Your task to perform on an android device: What's on my calendar tomorrow? Image 0: 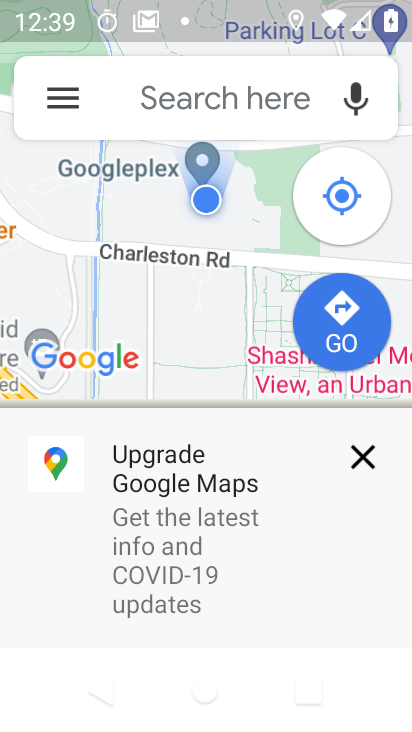
Step 0: press home button
Your task to perform on an android device: What's on my calendar tomorrow? Image 1: 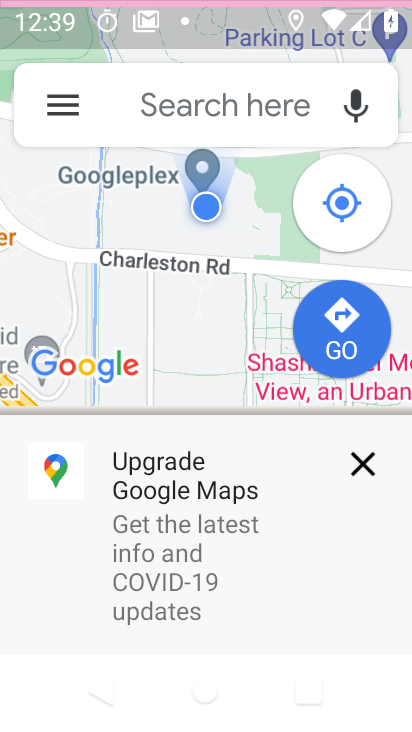
Step 1: press home button
Your task to perform on an android device: What's on my calendar tomorrow? Image 2: 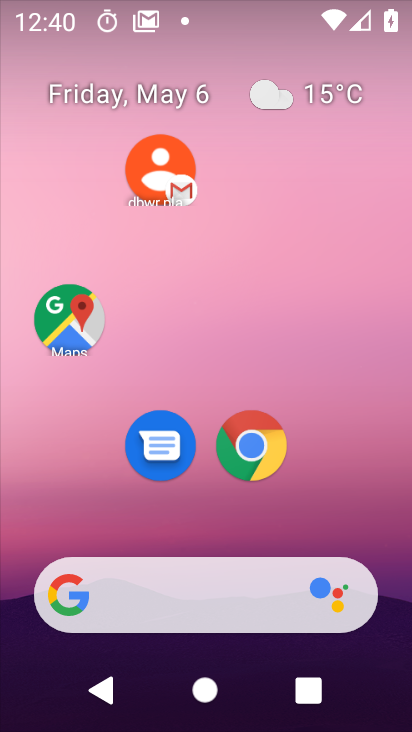
Step 2: drag from (336, 480) to (231, 179)
Your task to perform on an android device: What's on my calendar tomorrow? Image 3: 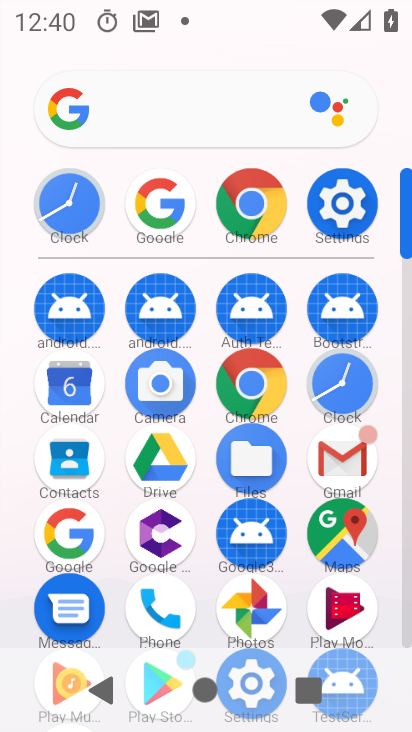
Step 3: click (76, 387)
Your task to perform on an android device: What's on my calendar tomorrow? Image 4: 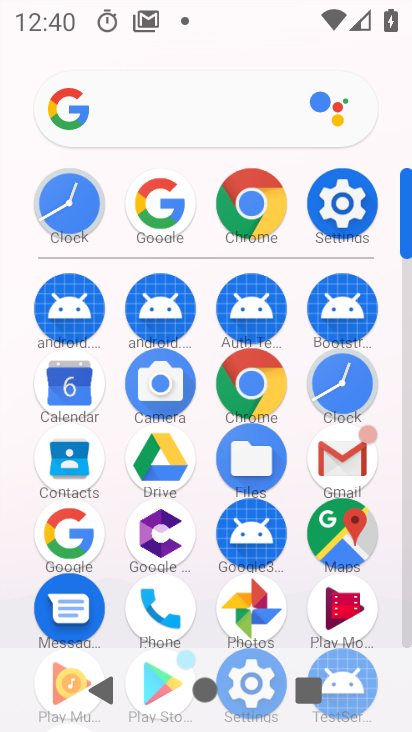
Step 4: click (76, 387)
Your task to perform on an android device: What's on my calendar tomorrow? Image 5: 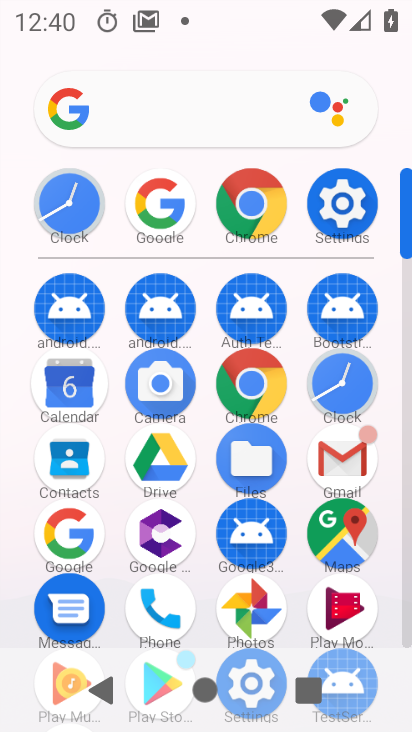
Step 5: click (73, 388)
Your task to perform on an android device: What's on my calendar tomorrow? Image 6: 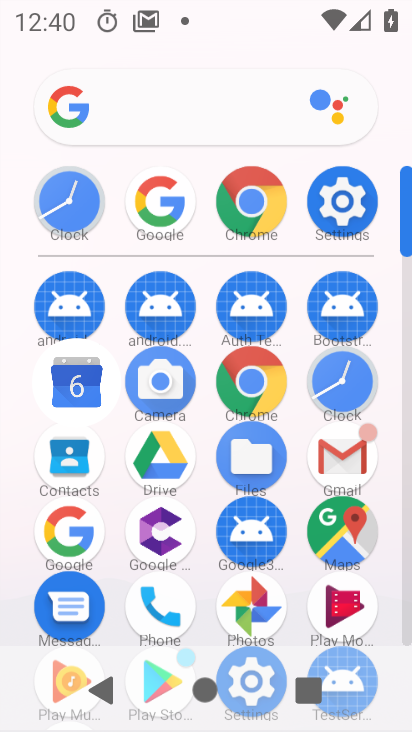
Step 6: click (69, 397)
Your task to perform on an android device: What's on my calendar tomorrow? Image 7: 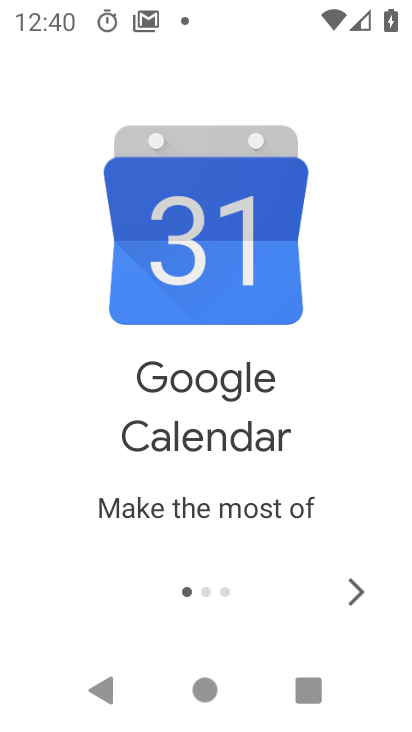
Step 7: click (355, 590)
Your task to perform on an android device: What's on my calendar tomorrow? Image 8: 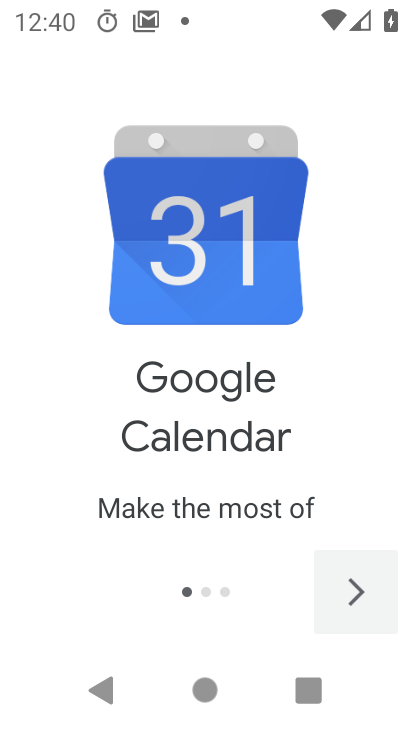
Step 8: click (355, 590)
Your task to perform on an android device: What's on my calendar tomorrow? Image 9: 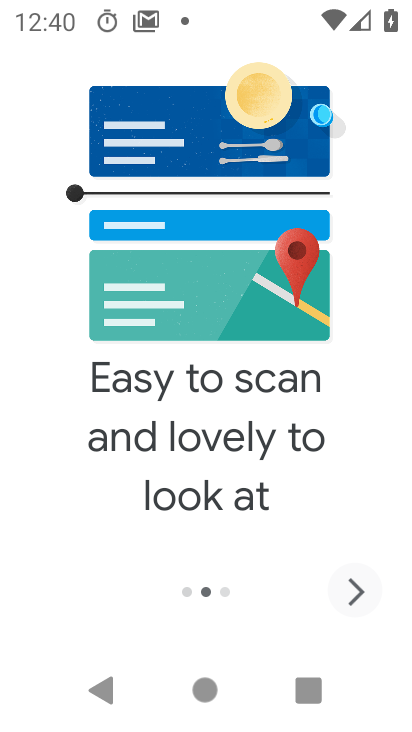
Step 9: click (355, 590)
Your task to perform on an android device: What's on my calendar tomorrow? Image 10: 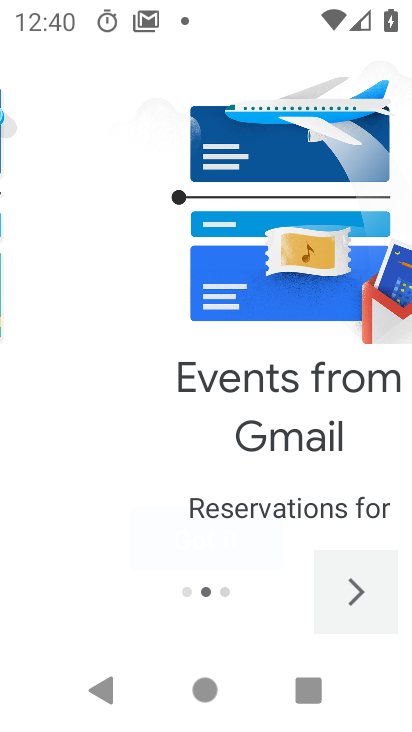
Step 10: click (355, 590)
Your task to perform on an android device: What's on my calendar tomorrow? Image 11: 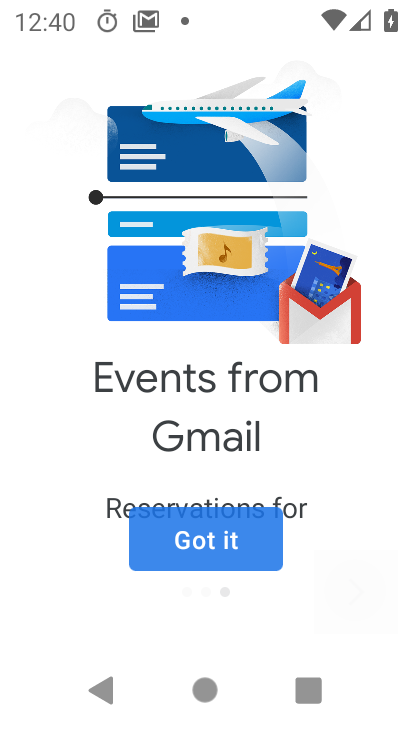
Step 11: click (354, 589)
Your task to perform on an android device: What's on my calendar tomorrow? Image 12: 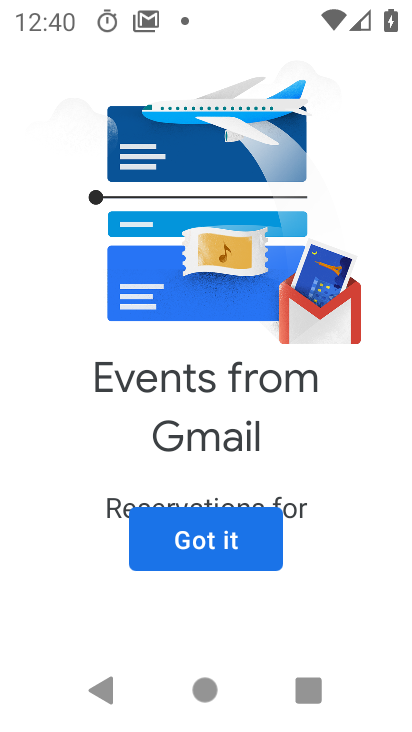
Step 12: click (225, 528)
Your task to perform on an android device: What's on my calendar tomorrow? Image 13: 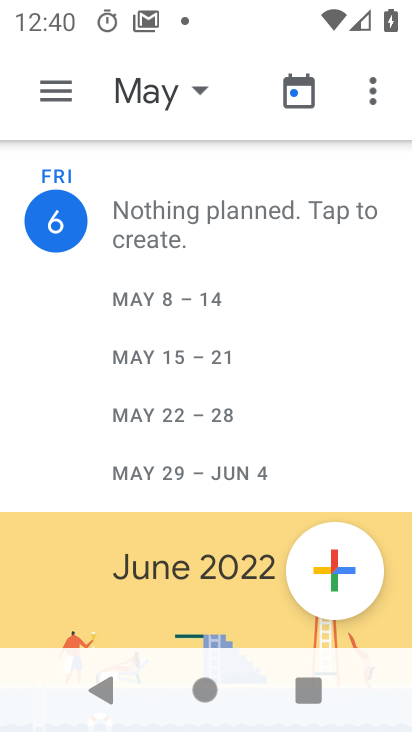
Step 13: press home button
Your task to perform on an android device: What's on my calendar tomorrow? Image 14: 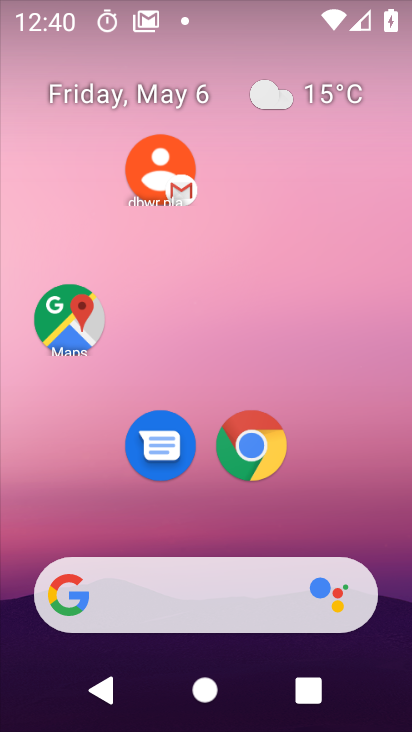
Step 14: drag from (351, 541) to (133, 54)
Your task to perform on an android device: What's on my calendar tomorrow? Image 15: 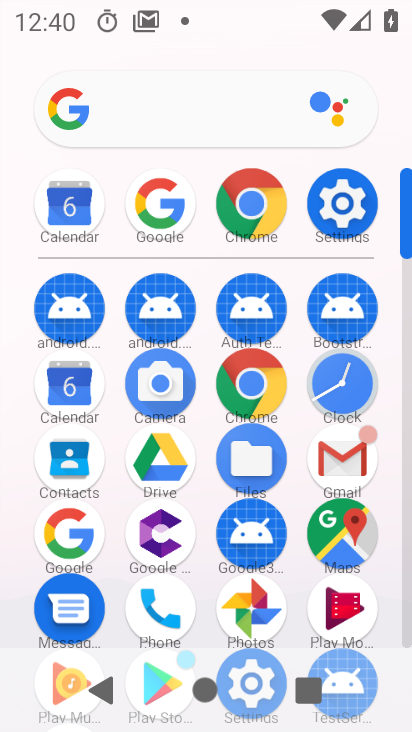
Step 15: click (62, 362)
Your task to perform on an android device: What's on my calendar tomorrow? Image 16: 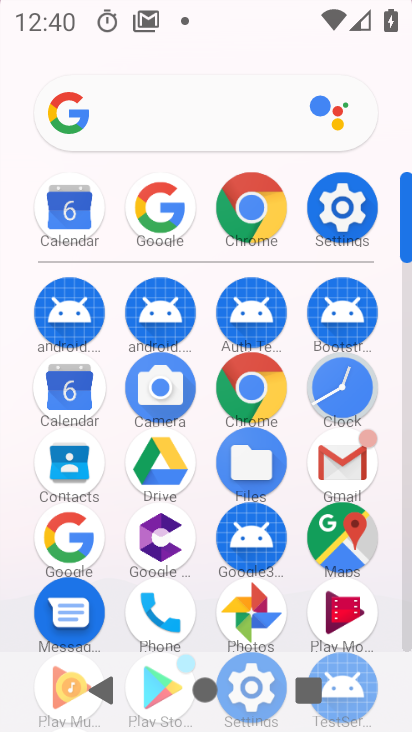
Step 16: click (73, 382)
Your task to perform on an android device: What's on my calendar tomorrow? Image 17: 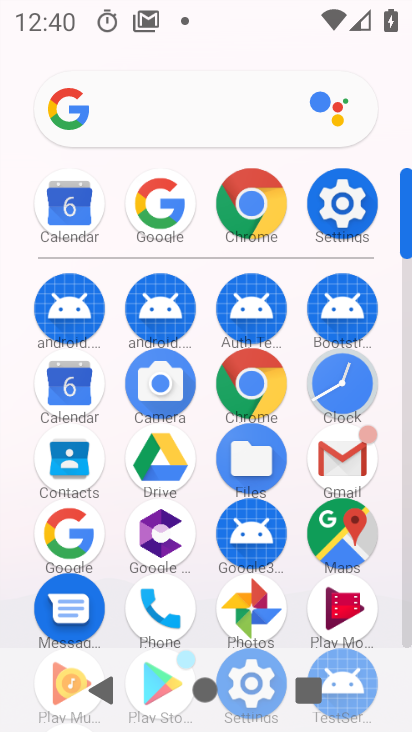
Step 17: click (73, 382)
Your task to perform on an android device: What's on my calendar tomorrow? Image 18: 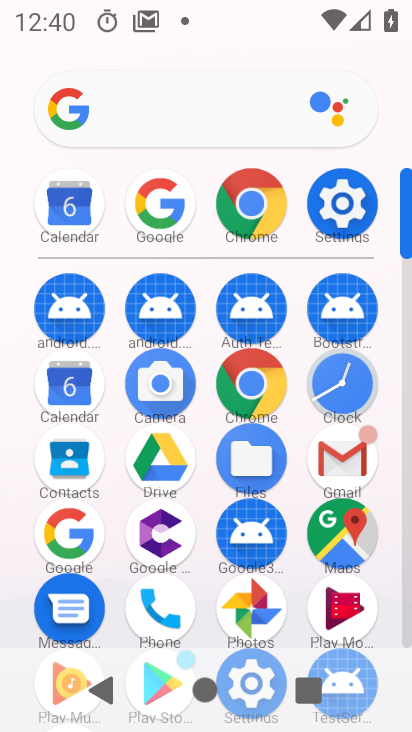
Step 18: click (73, 382)
Your task to perform on an android device: What's on my calendar tomorrow? Image 19: 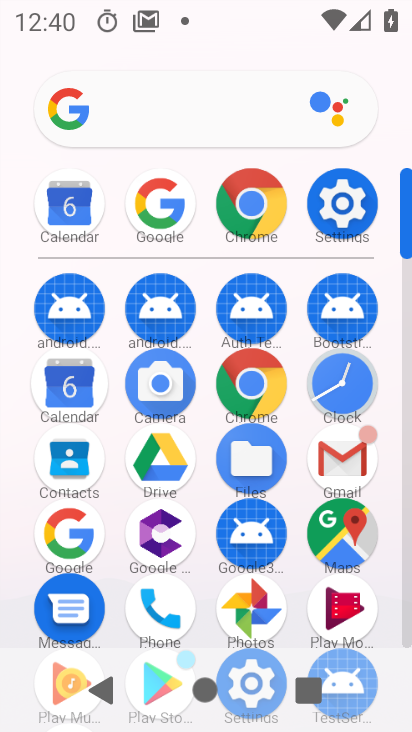
Step 19: click (73, 382)
Your task to perform on an android device: What's on my calendar tomorrow? Image 20: 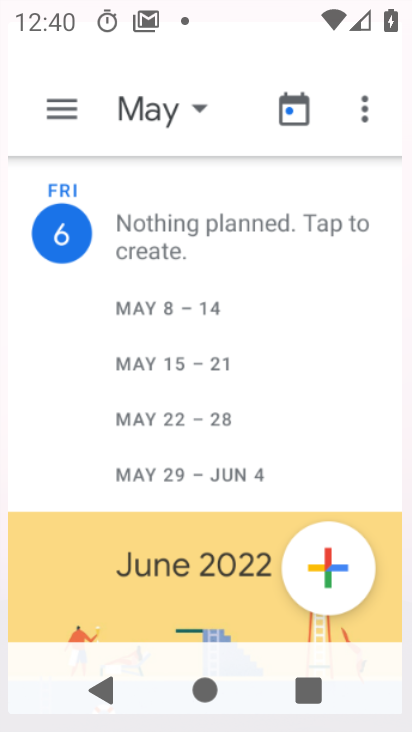
Step 20: click (73, 382)
Your task to perform on an android device: What's on my calendar tomorrow? Image 21: 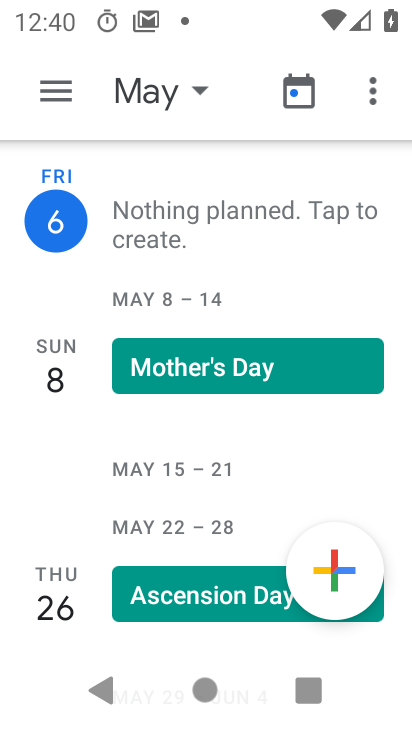
Step 21: press home button
Your task to perform on an android device: What's on my calendar tomorrow? Image 22: 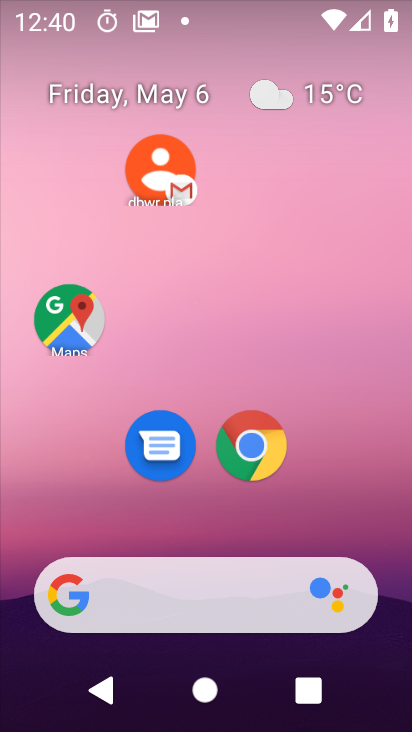
Step 22: drag from (364, 651) to (300, 82)
Your task to perform on an android device: What's on my calendar tomorrow? Image 23: 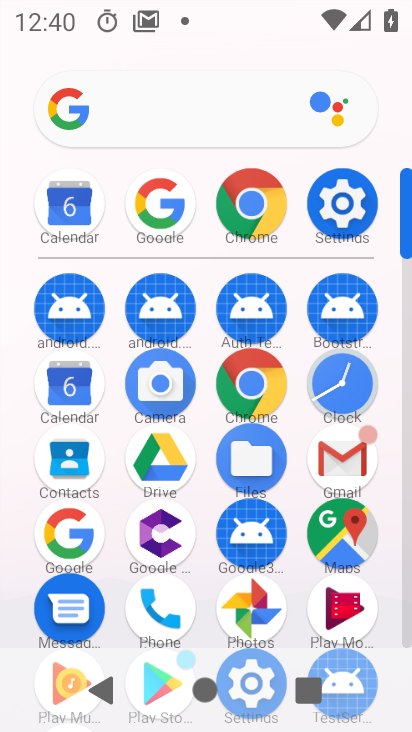
Step 23: click (77, 404)
Your task to perform on an android device: What's on my calendar tomorrow? Image 24: 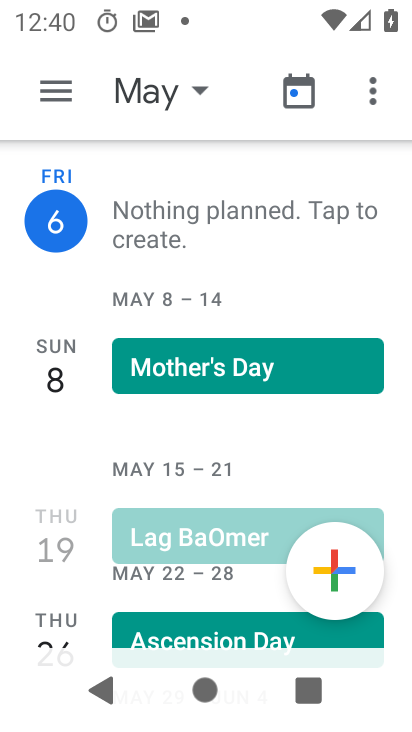
Step 24: click (57, 370)
Your task to perform on an android device: What's on my calendar tomorrow? Image 25: 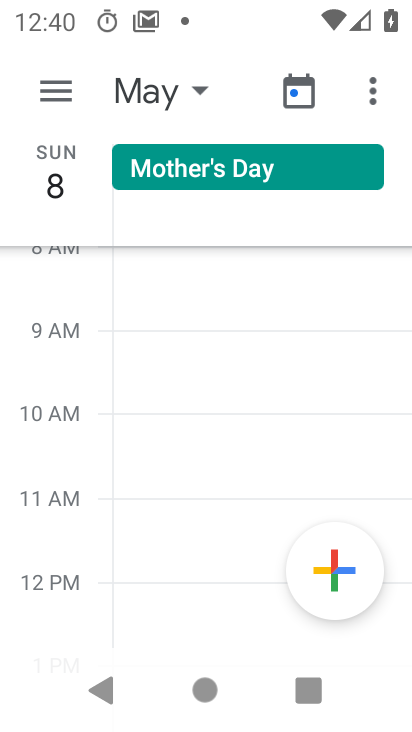
Step 25: drag from (65, 101) to (138, 616)
Your task to perform on an android device: What's on my calendar tomorrow? Image 26: 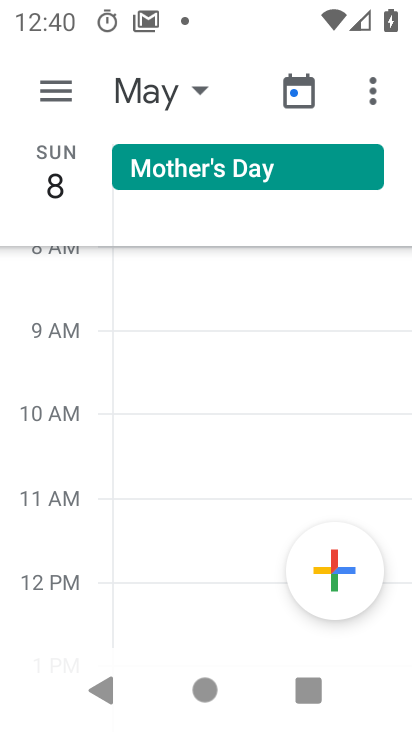
Step 26: click (70, 83)
Your task to perform on an android device: What's on my calendar tomorrow? Image 27: 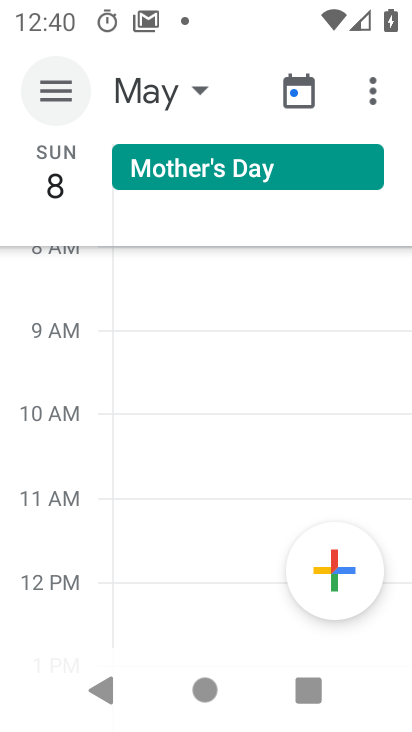
Step 27: click (70, 87)
Your task to perform on an android device: What's on my calendar tomorrow? Image 28: 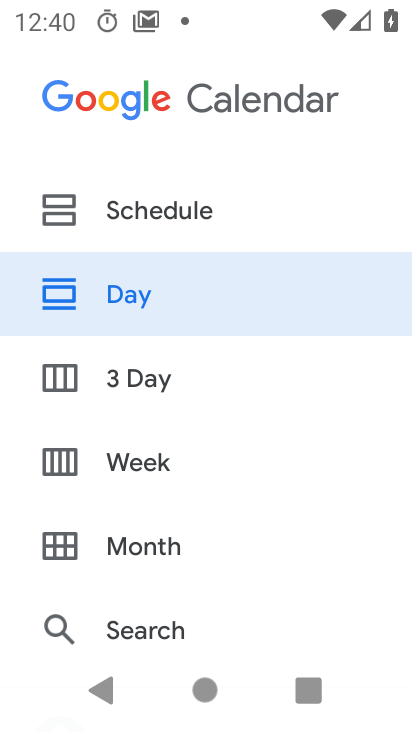
Step 28: click (149, 304)
Your task to perform on an android device: What's on my calendar tomorrow? Image 29: 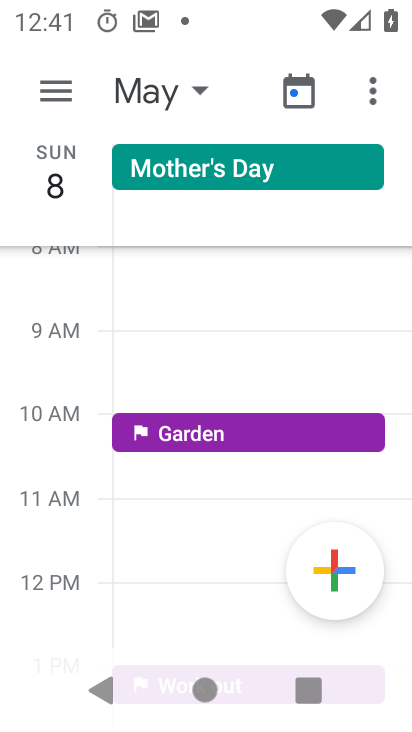
Step 29: task complete